Your task to perform on an android device: open app "NewsBreak: Local News & Alerts" (install if not already installed) Image 0: 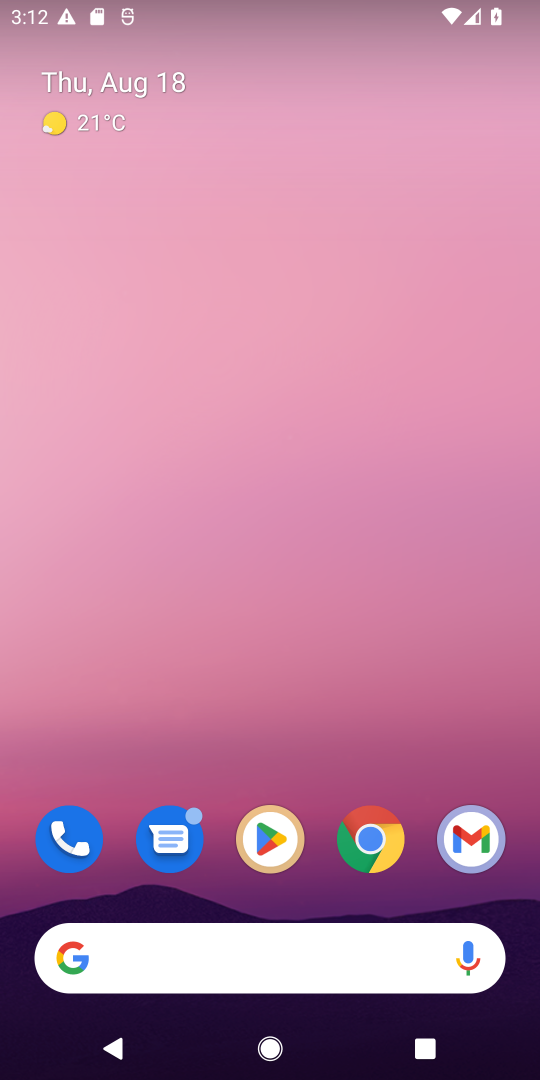
Step 0: click (254, 820)
Your task to perform on an android device: open app "NewsBreak: Local News & Alerts" (install if not already installed) Image 1: 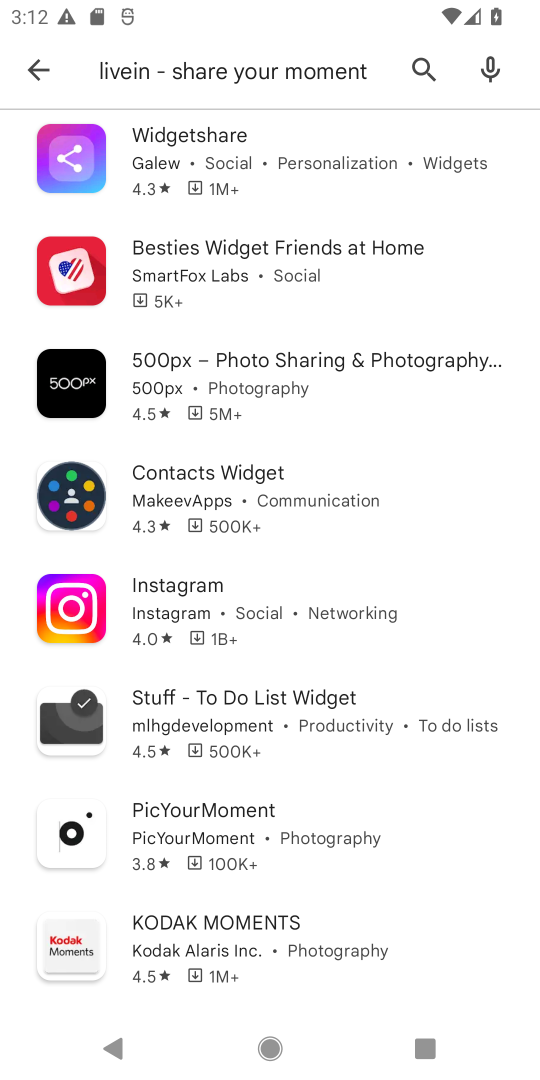
Step 1: click (75, 68)
Your task to perform on an android device: open app "NewsBreak: Local News & Alerts" (install if not already installed) Image 2: 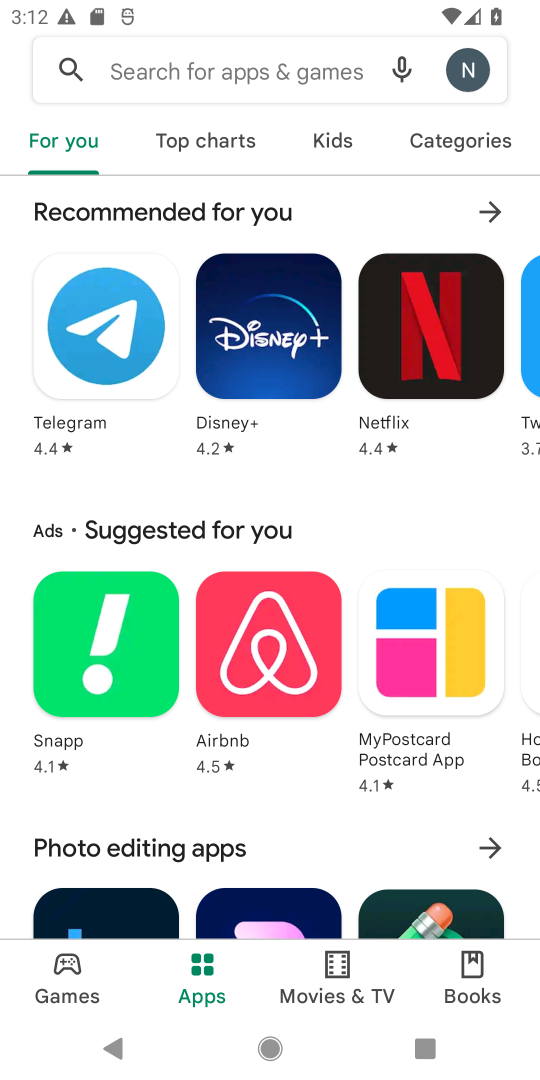
Step 2: click (105, 75)
Your task to perform on an android device: open app "NewsBreak: Local News & Alerts" (install if not already installed) Image 3: 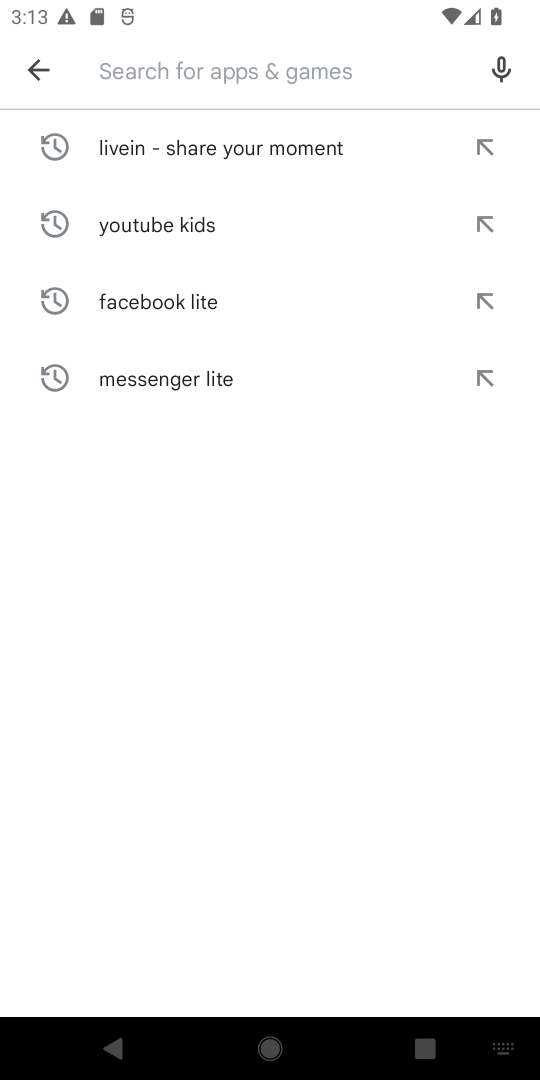
Step 3: type "NewsBreak: Local News & Alerts"
Your task to perform on an android device: open app "NewsBreak: Local News & Alerts" (install if not already installed) Image 4: 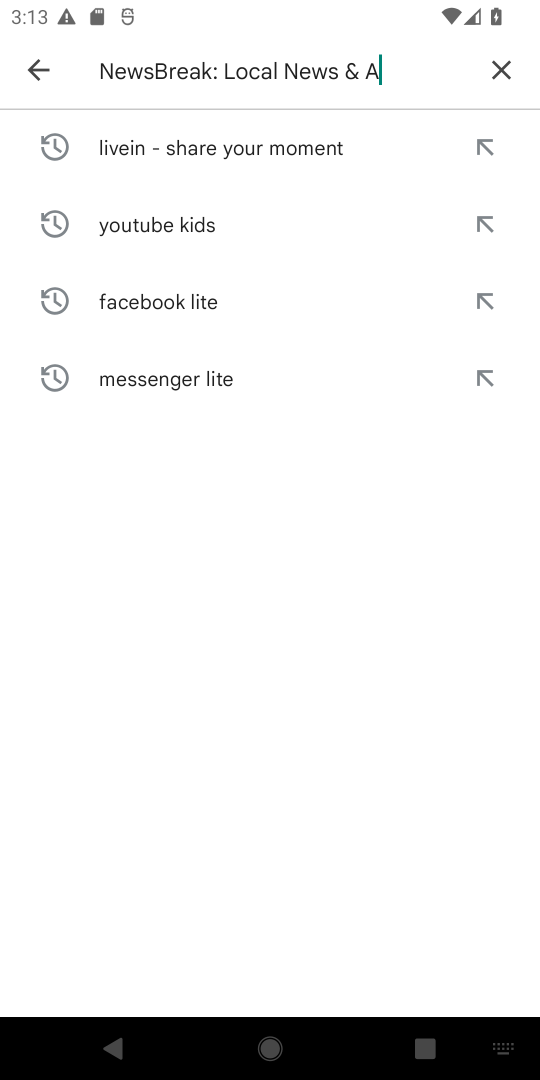
Step 4: type ""
Your task to perform on an android device: open app "NewsBreak: Local News & Alerts" (install if not already installed) Image 5: 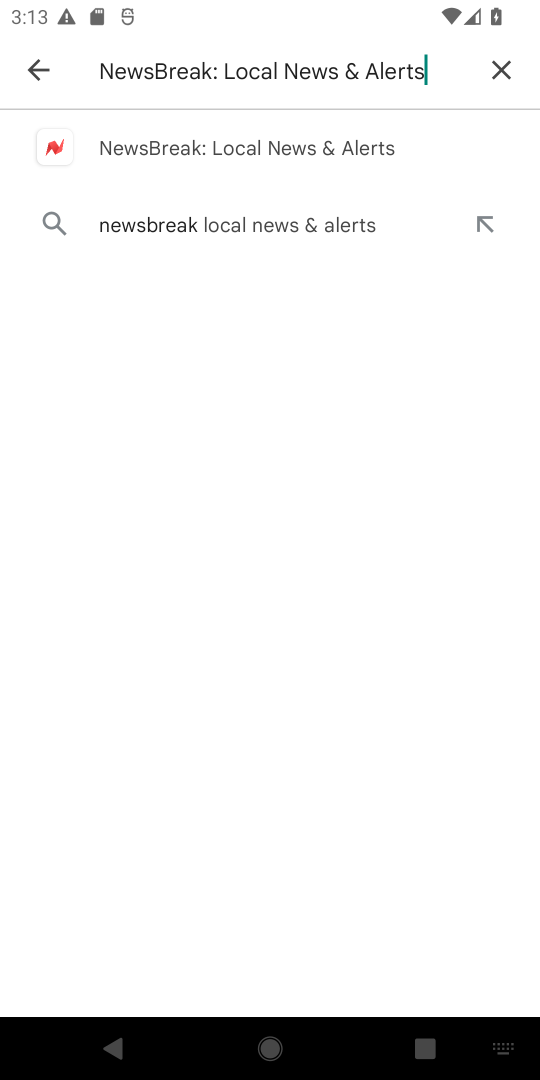
Step 5: click (135, 136)
Your task to perform on an android device: open app "NewsBreak: Local News & Alerts" (install if not already installed) Image 6: 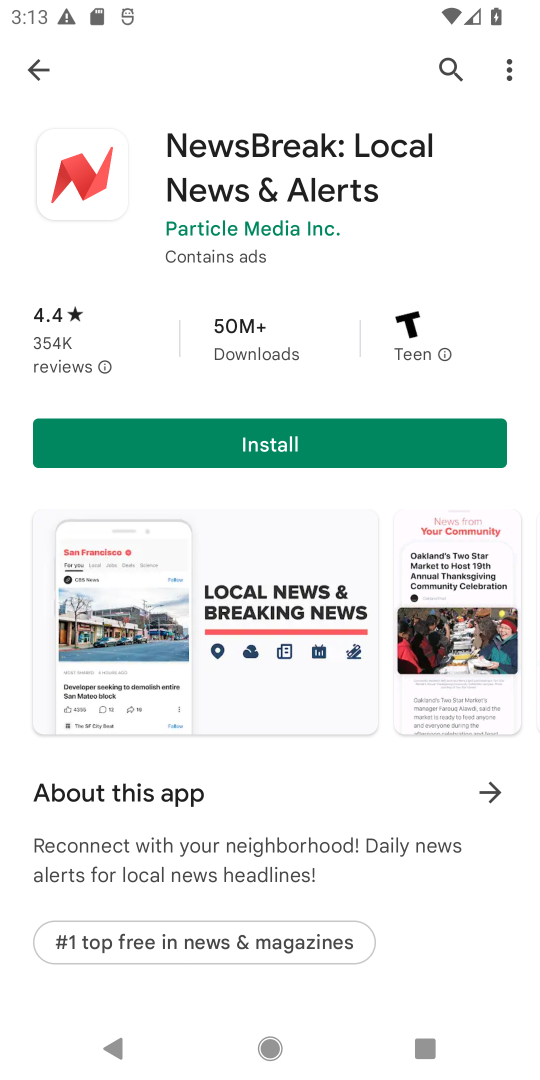
Step 6: click (202, 425)
Your task to perform on an android device: open app "NewsBreak: Local News & Alerts" (install if not already installed) Image 7: 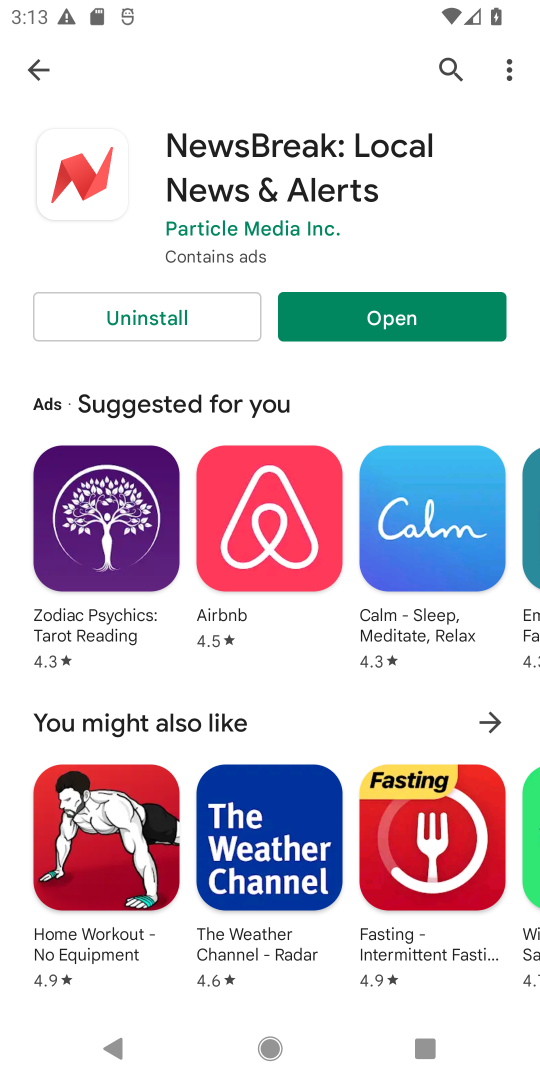
Step 7: click (468, 308)
Your task to perform on an android device: open app "NewsBreak: Local News & Alerts" (install if not already installed) Image 8: 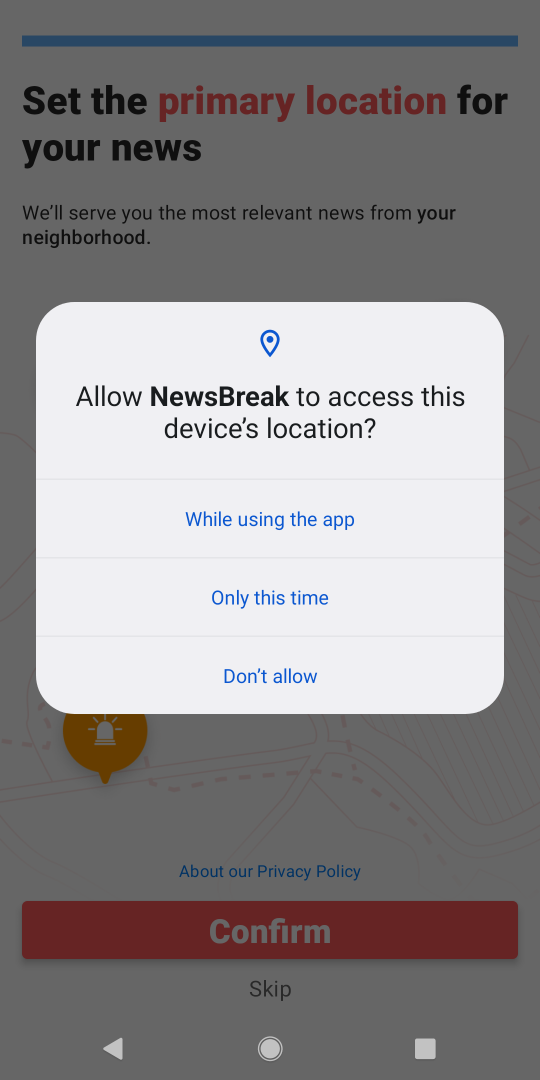
Step 8: click (316, 536)
Your task to perform on an android device: open app "NewsBreak: Local News & Alerts" (install if not already installed) Image 9: 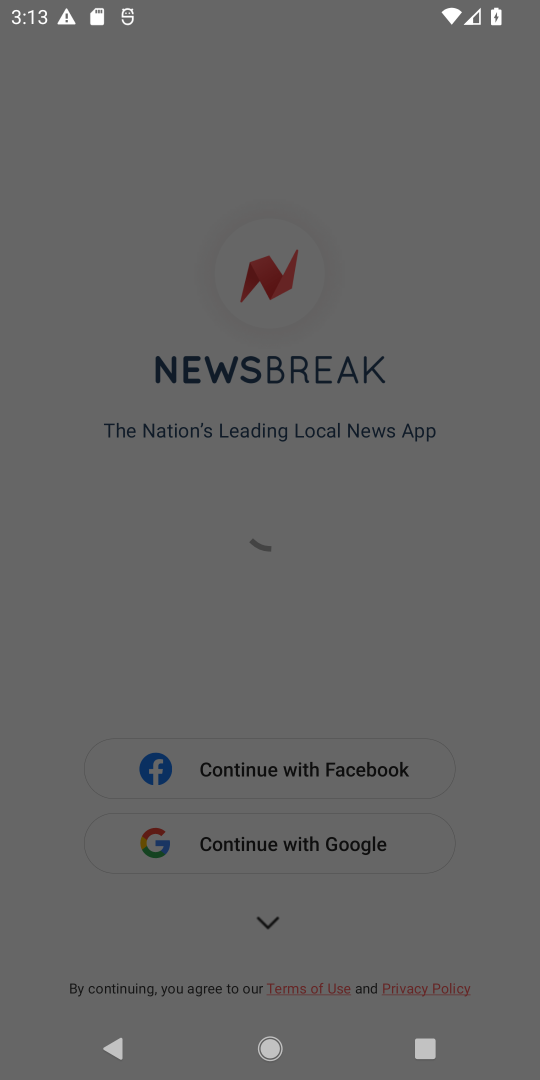
Step 9: task complete